Your task to perform on an android device: Clear the cart on ebay. Add "razer blade" to the cart on ebay, then select checkout. Image 0: 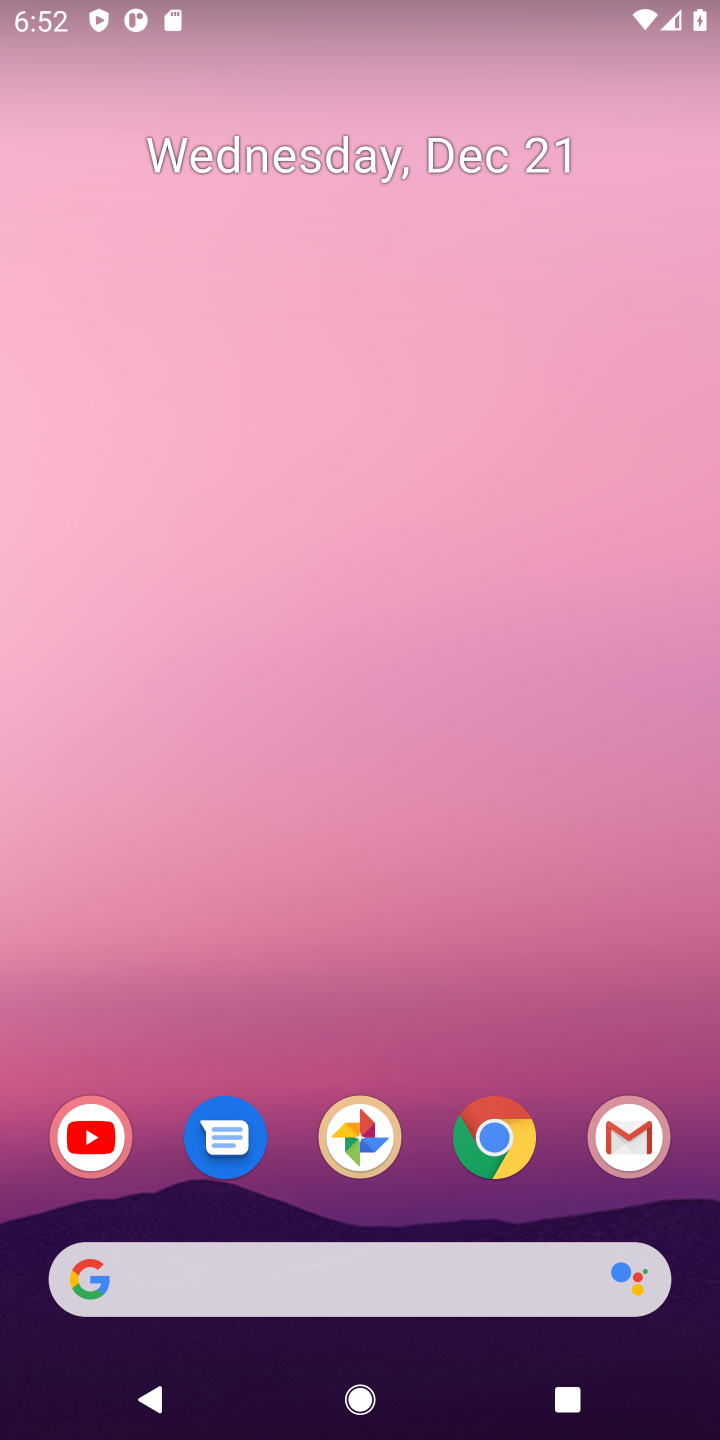
Step 0: click (500, 1151)
Your task to perform on an android device: Clear the cart on ebay. Add "razer blade" to the cart on ebay, then select checkout. Image 1: 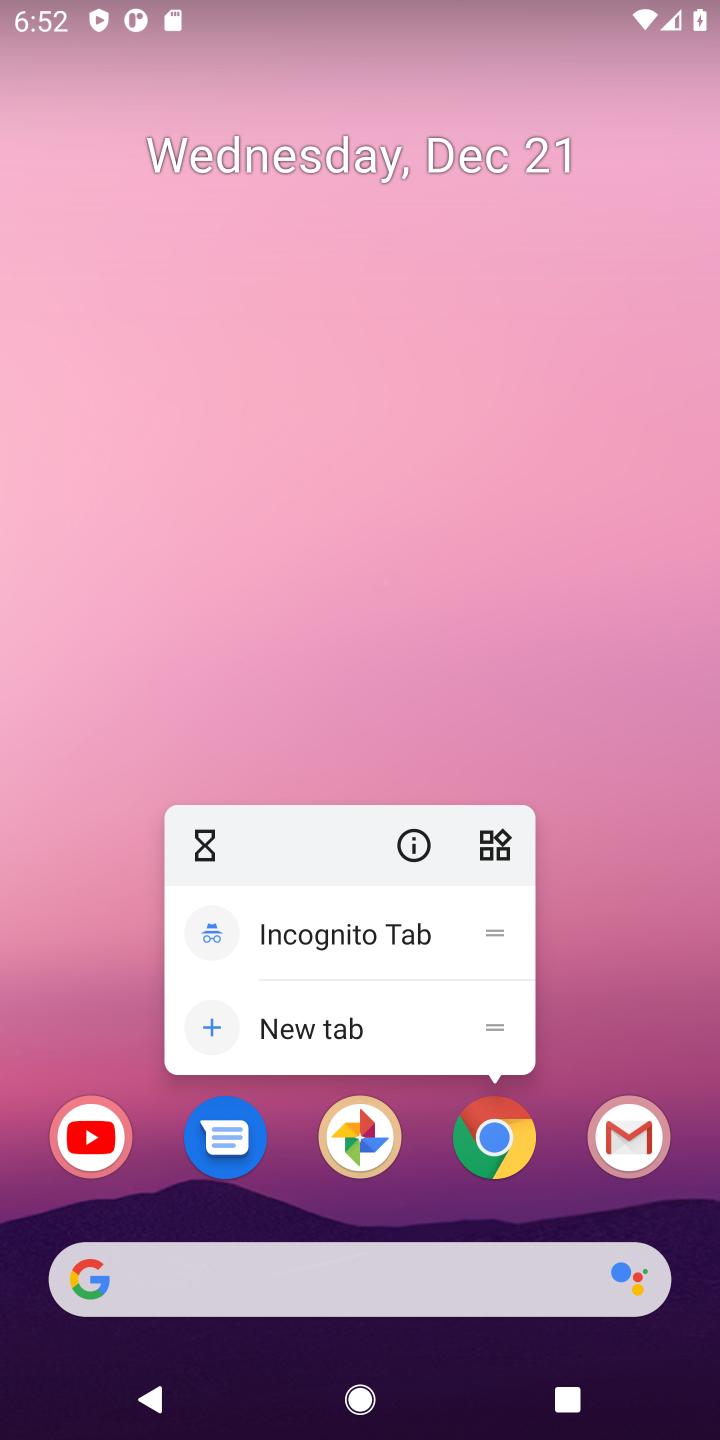
Step 1: click (500, 1151)
Your task to perform on an android device: Clear the cart on ebay. Add "razer blade" to the cart on ebay, then select checkout. Image 2: 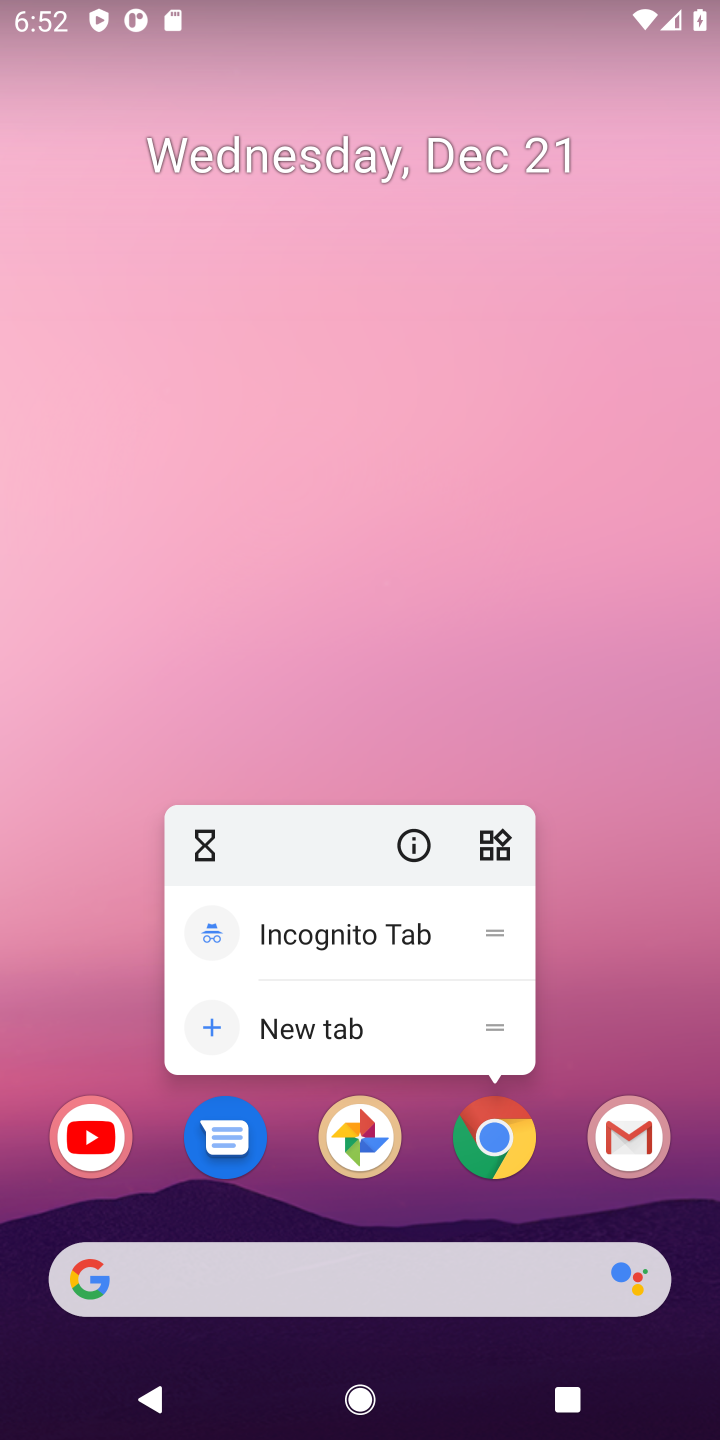
Step 2: click (499, 1149)
Your task to perform on an android device: Clear the cart on ebay. Add "razer blade" to the cart on ebay, then select checkout. Image 3: 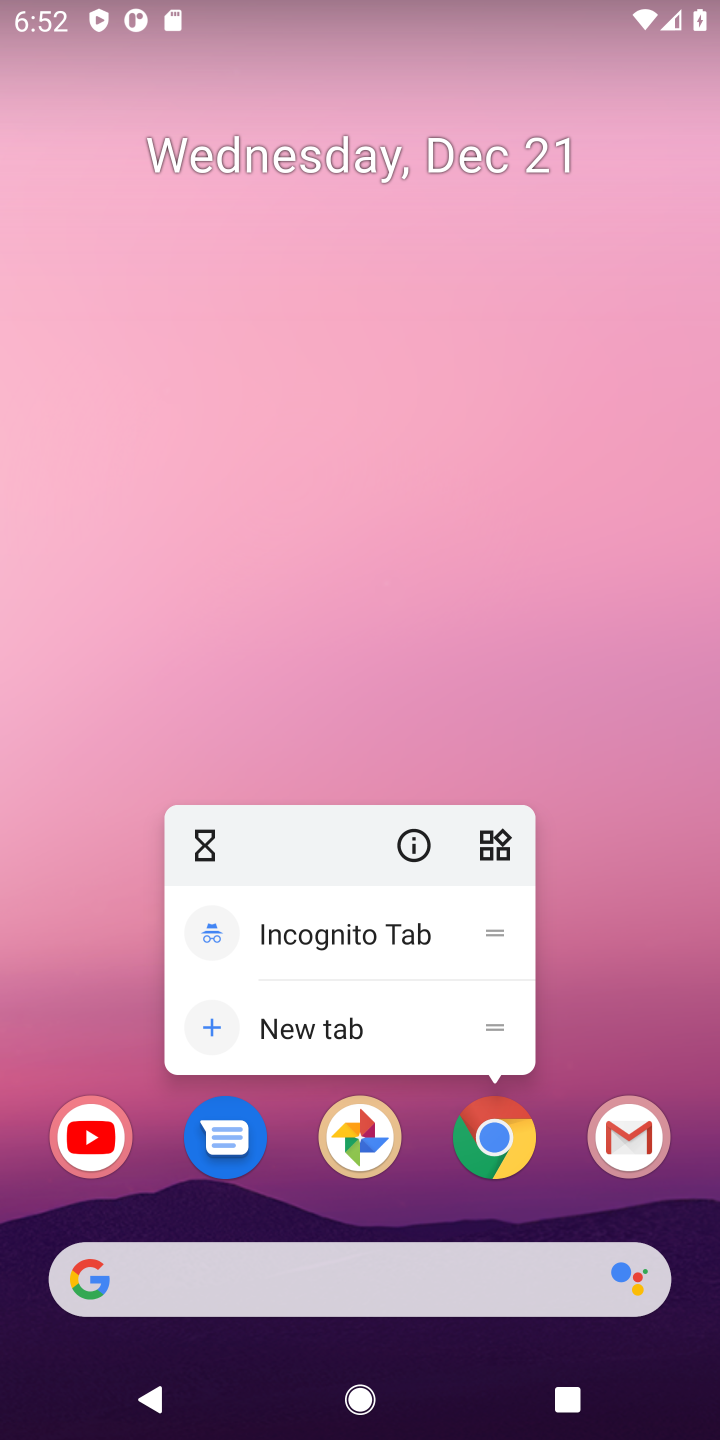
Step 3: click (597, 838)
Your task to perform on an android device: Clear the cart on ebay. Add "razer blade" to the cart on ebay, then select checkout. Image 4: 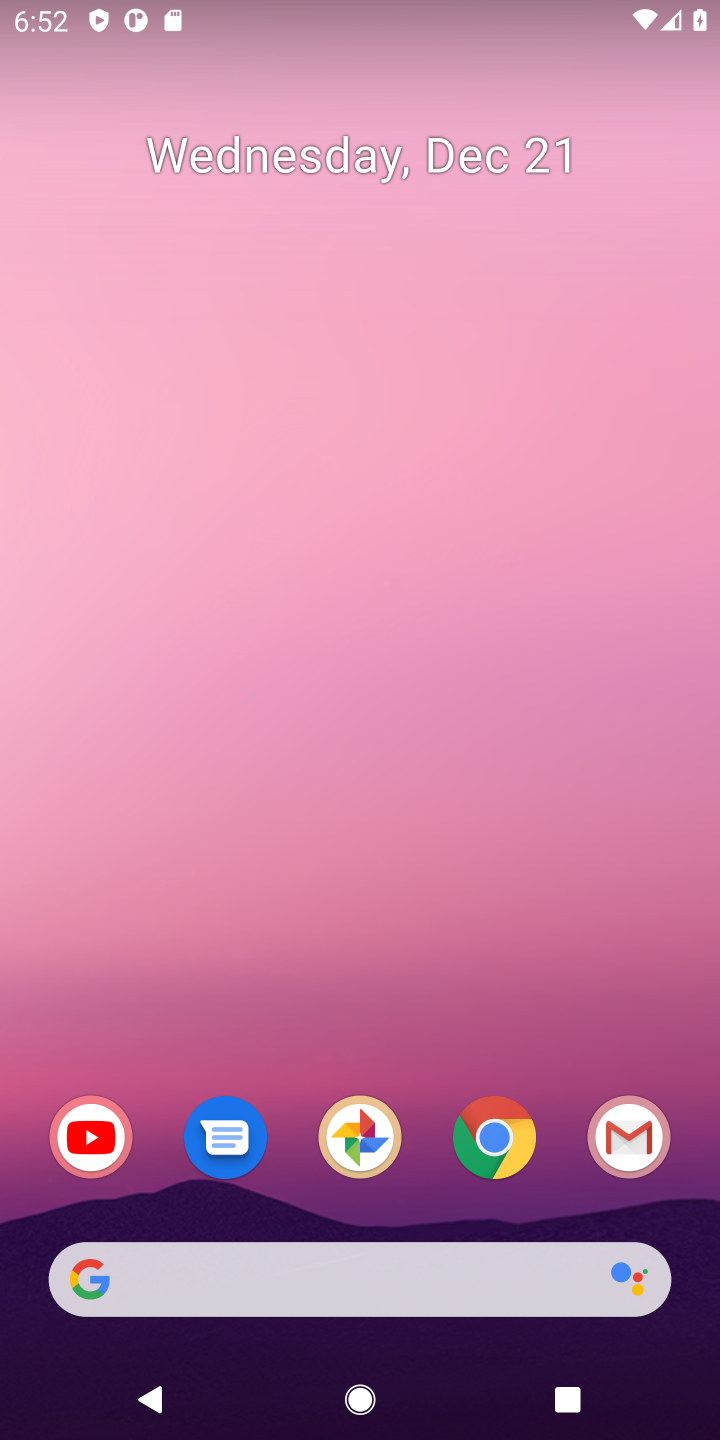
Step 4: click (502, 1133)
Your task to perform on an android device: Clear the cart on ebay. Add "razer blade" to the cart on ebay, then select checkout. Image 5: 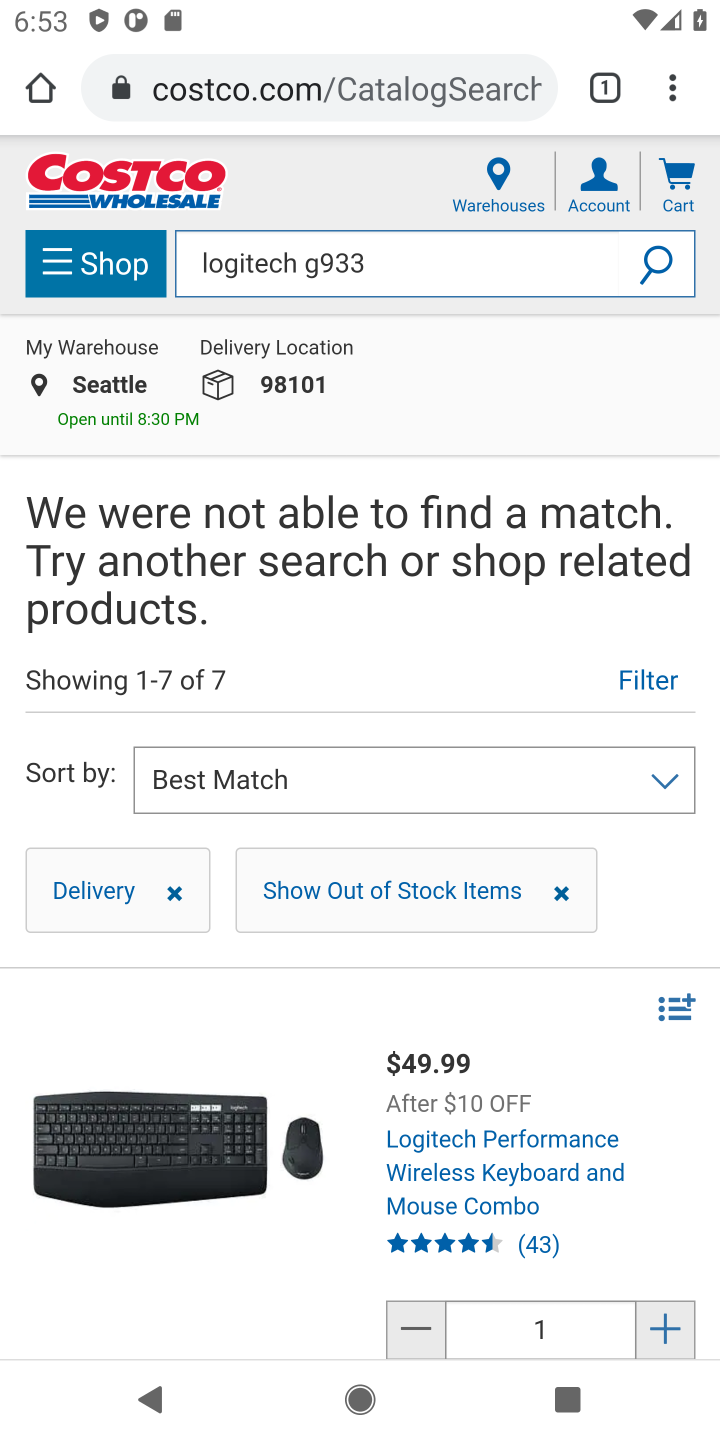
Step 5: click (259, 103)
Your task to perform on an android device: Clear the cart on ebay. Add "razer blade" to the cart on ebay, then select checkout. Image 6: 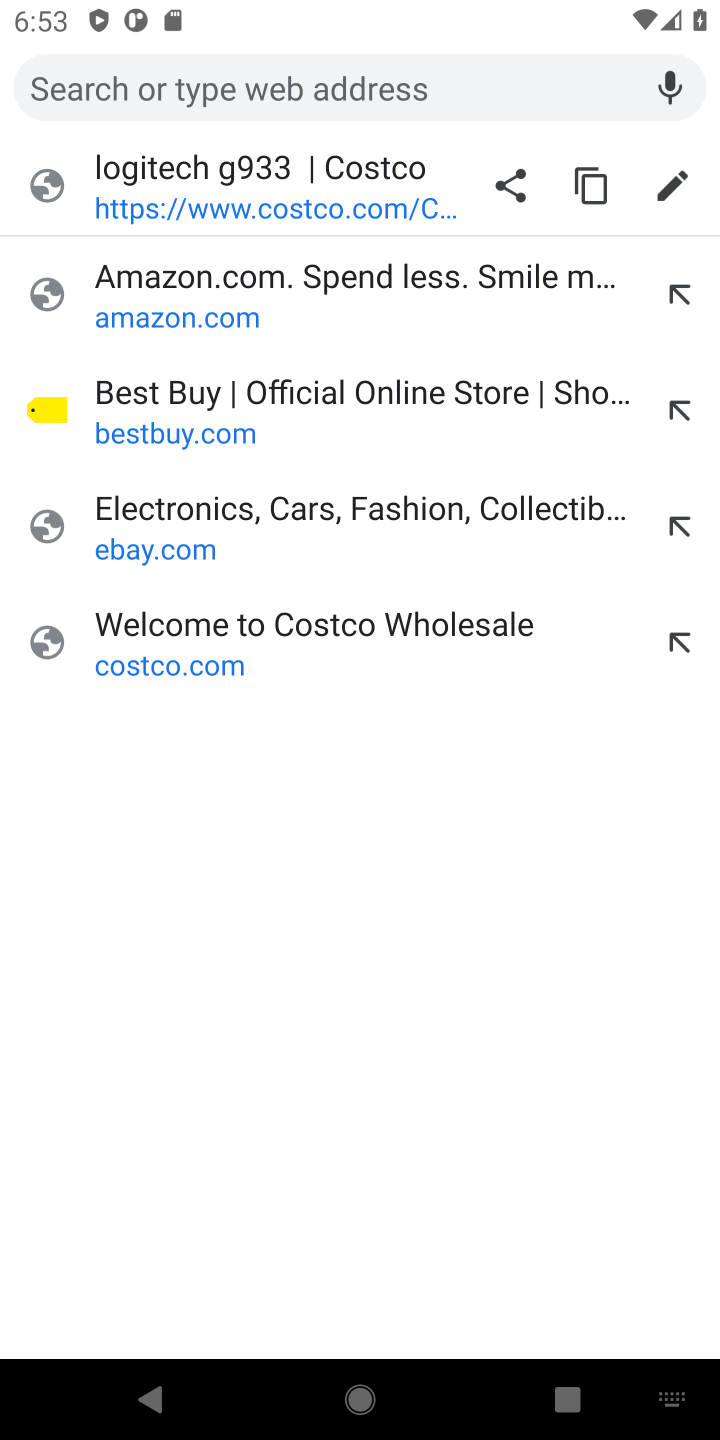
Step 6: click (146, 550)
Your task to perform on an android device: Clear the cart on ebay. Add "razer blade" to the cart on ebay, then select checkout. Image 7: 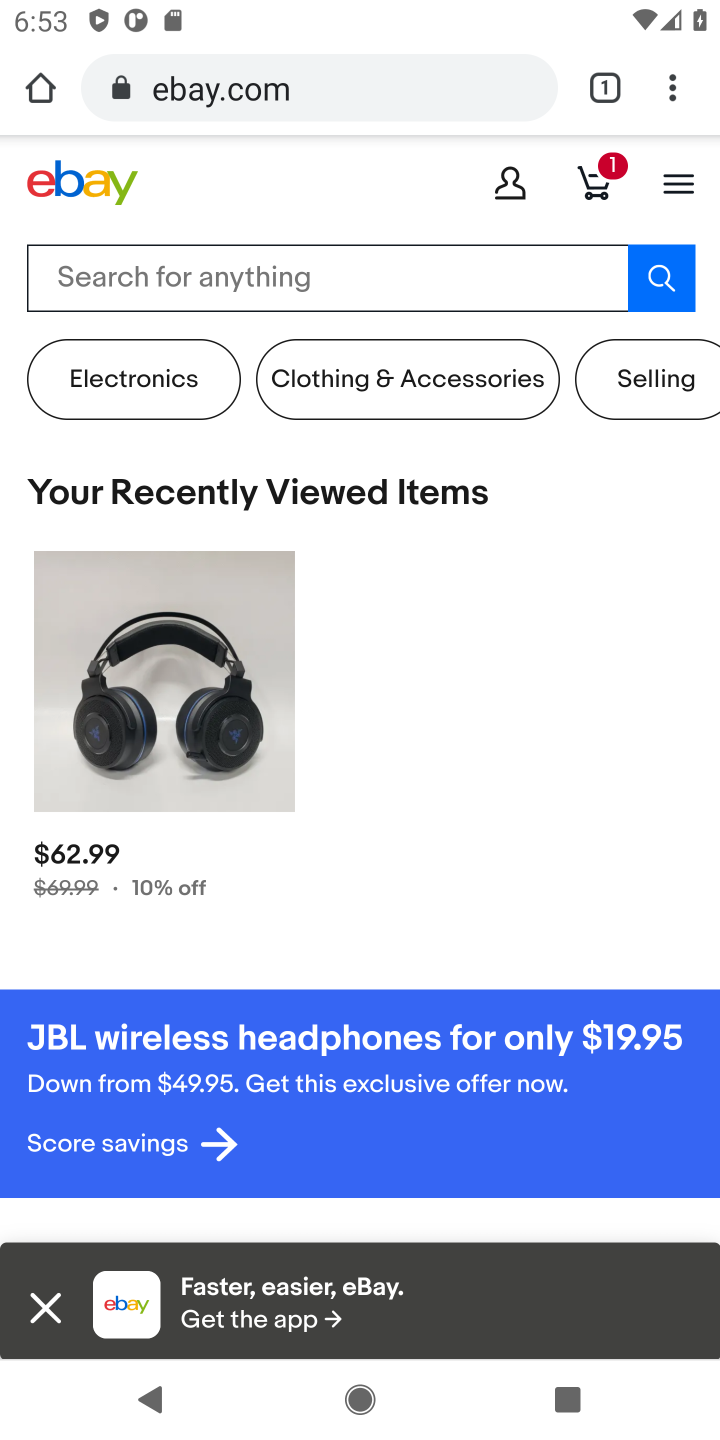
Step 7: click (605, 190)
Your task to perform on an android device: Clear the cart on ebay. Add "razer blade" to the cart on ebay, then select checkout. Image 8: 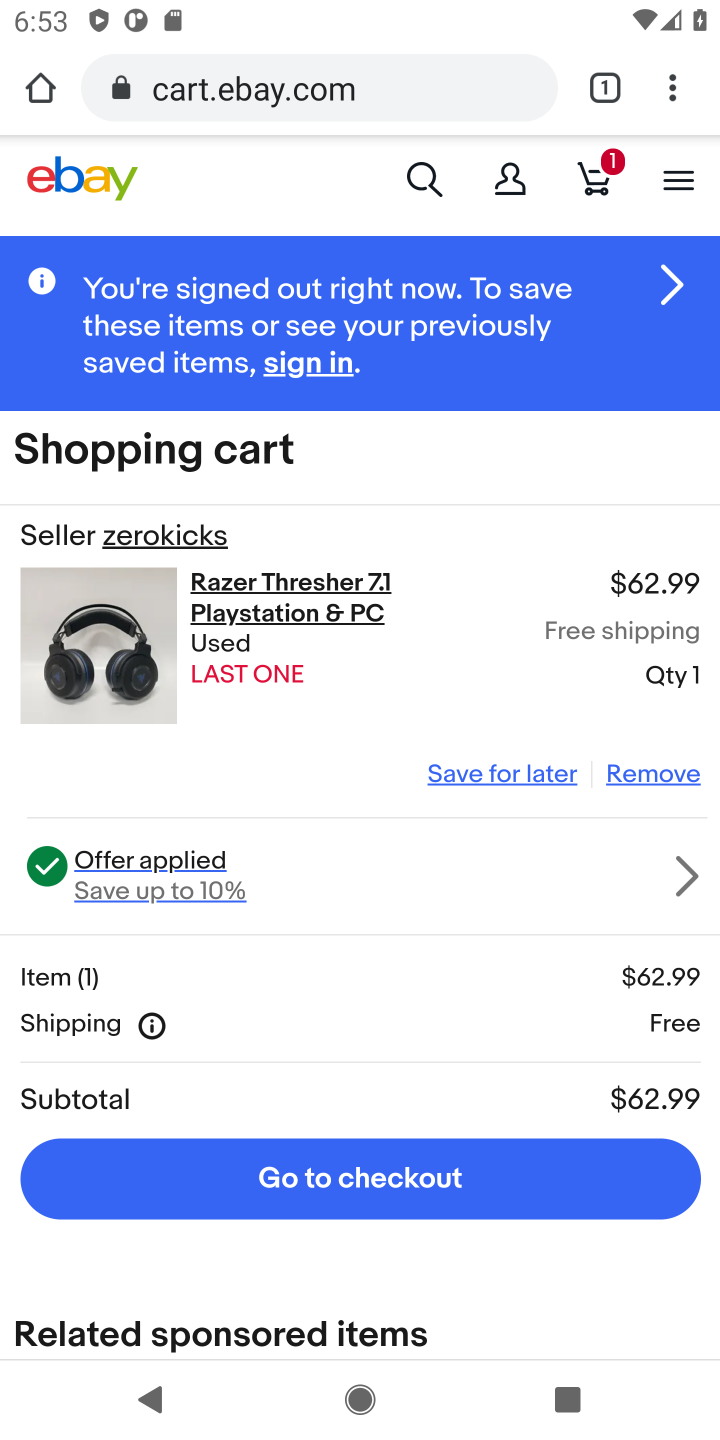
Step 8: click (640, 778)
Your task to perform on an android device: Clear the cart on ebay. Add "razer blade" to the cart on ebay, then select checkout. Image 9: 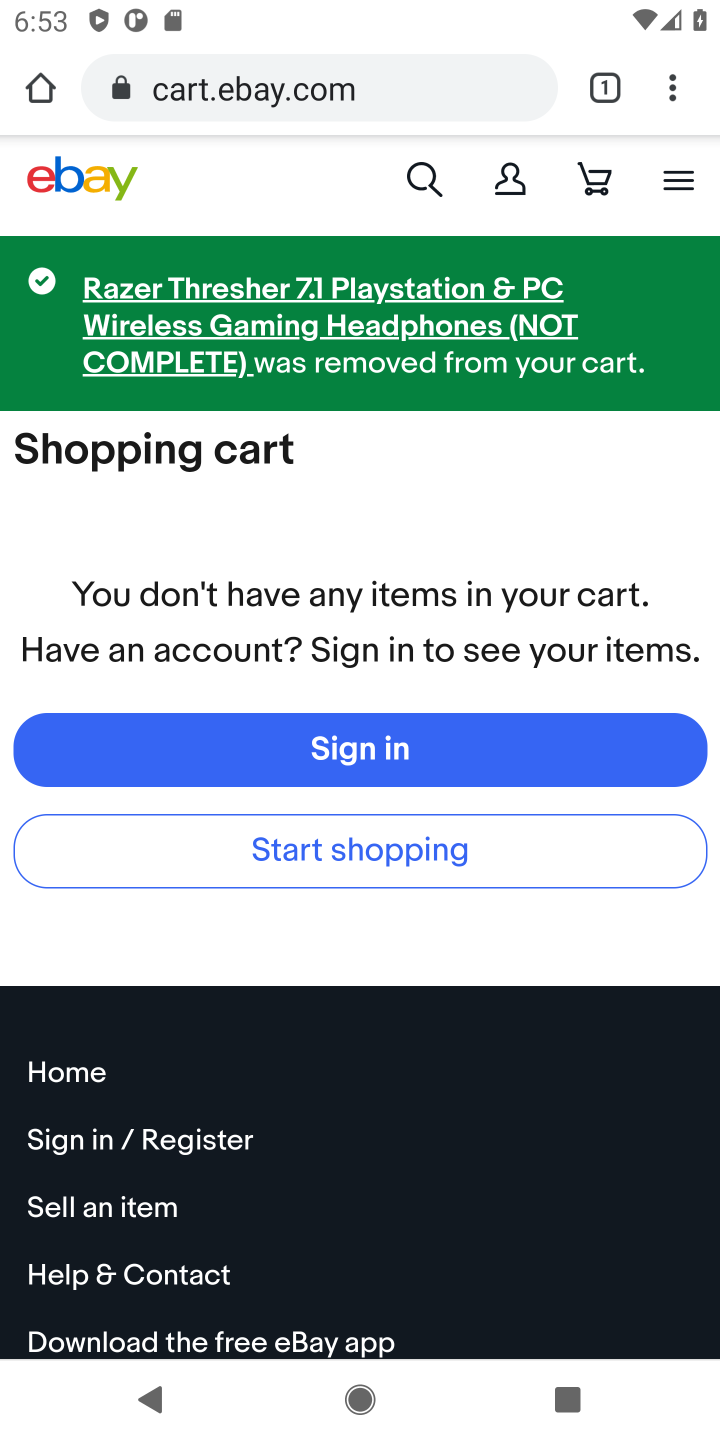
Step 9: click (417, 175)
Your task to perform on an android device: Clear the cart on ebay. Add "razer blade" to the cart on ebay, then select checkout. Image 10: 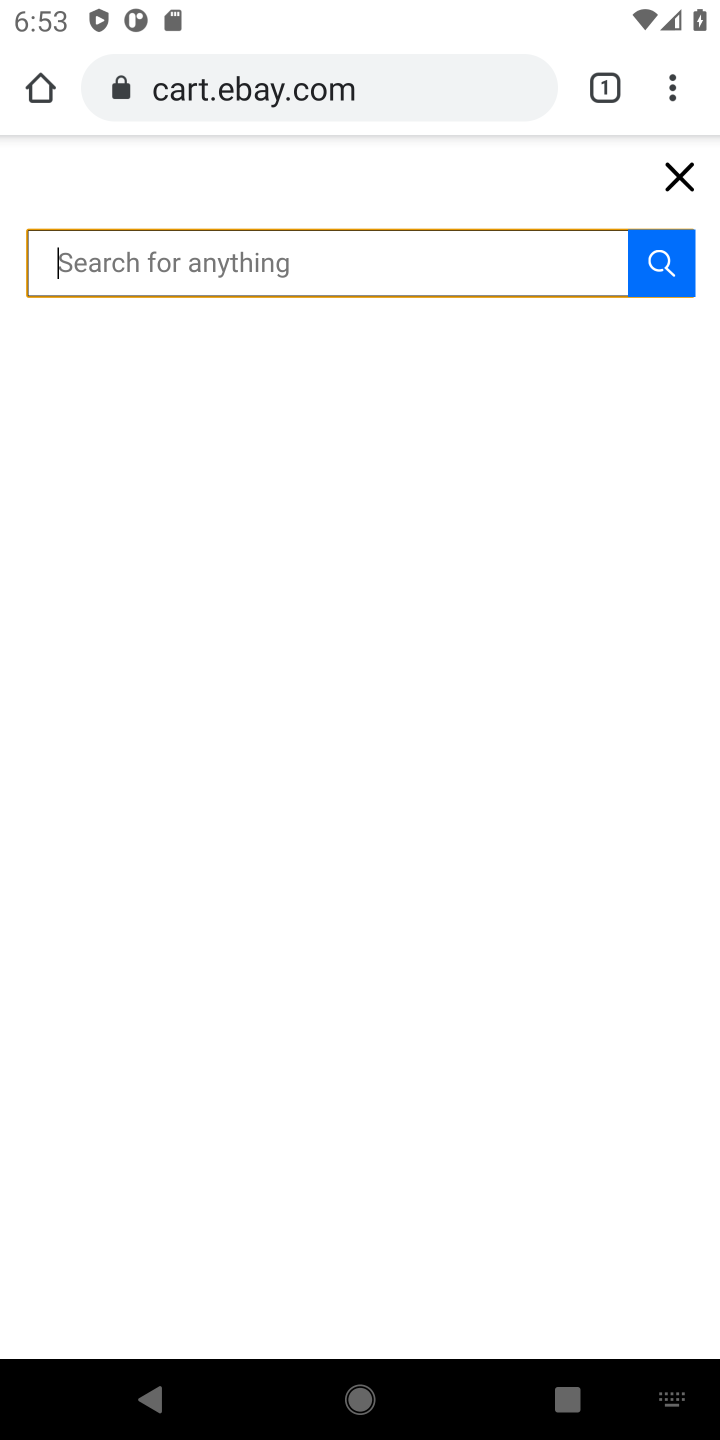
Step 10: type "razer blade"
Your task to perform on an android device: Clear the cart on ebay. Add "razer blade" to the cart on ebay, then select checkout. Image 11: 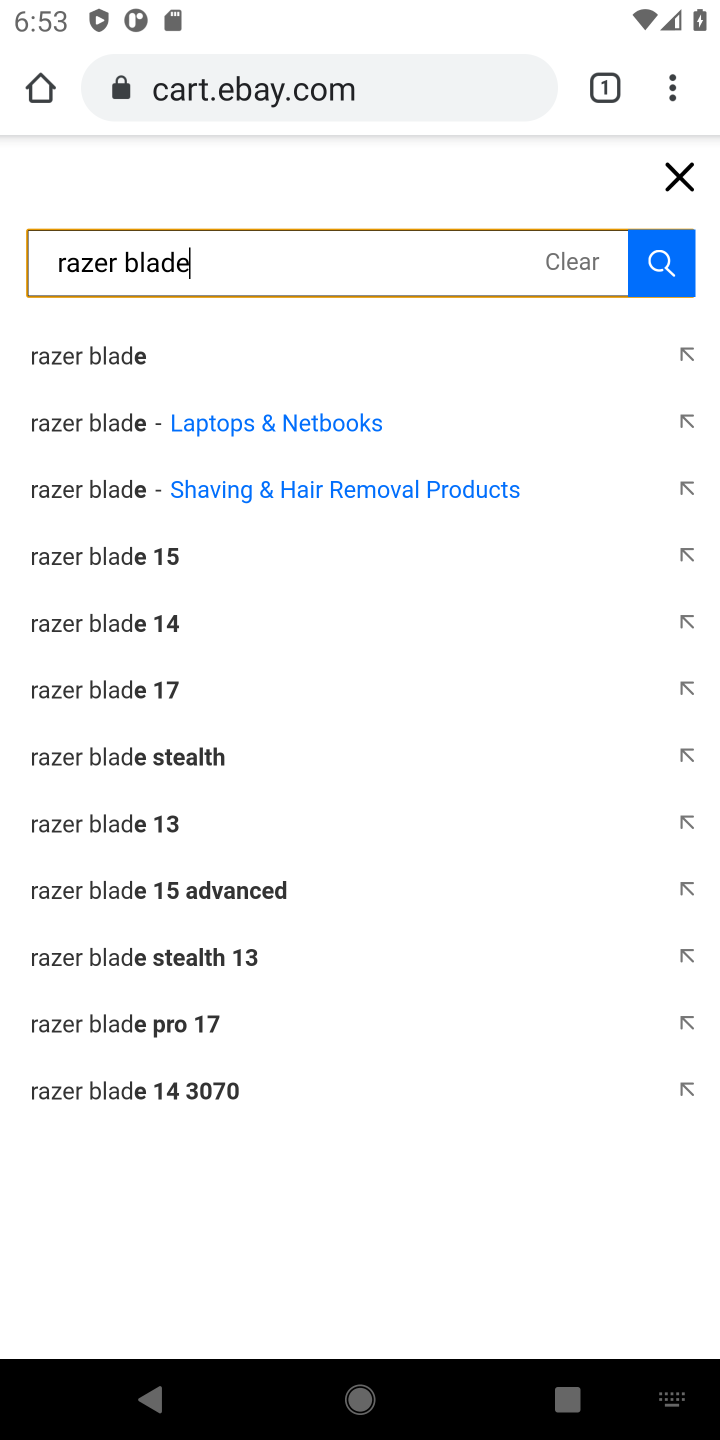
Step 11: click (104, 368)
Your task to perform on an android device: Clear the cart on ebay. Add "razer blade" to the cart on ebay, then select checkout. Image 12: 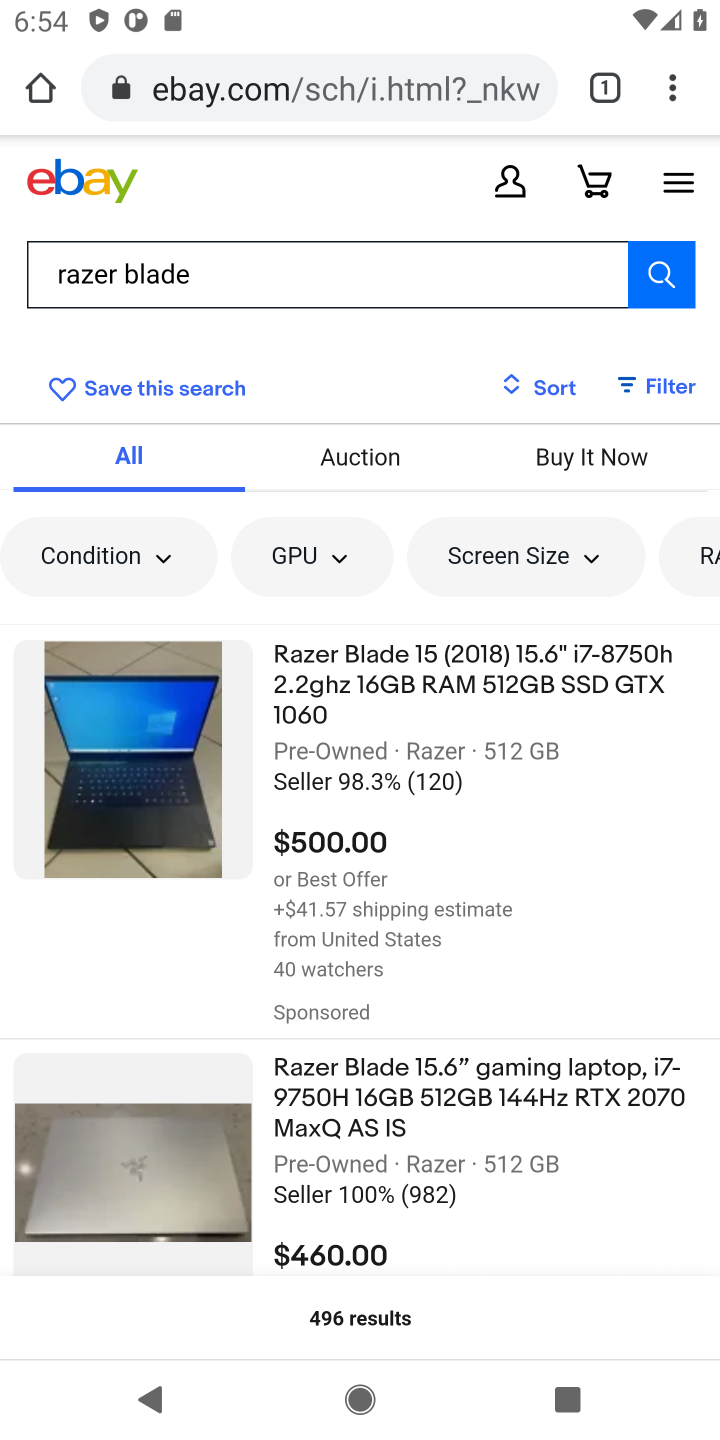
Step 12: click (339, 675)
Your task to perform on an android device: Clear the cart on ebay. Add "razer blade" to the cart on ebay, then select checkout. Image 13: 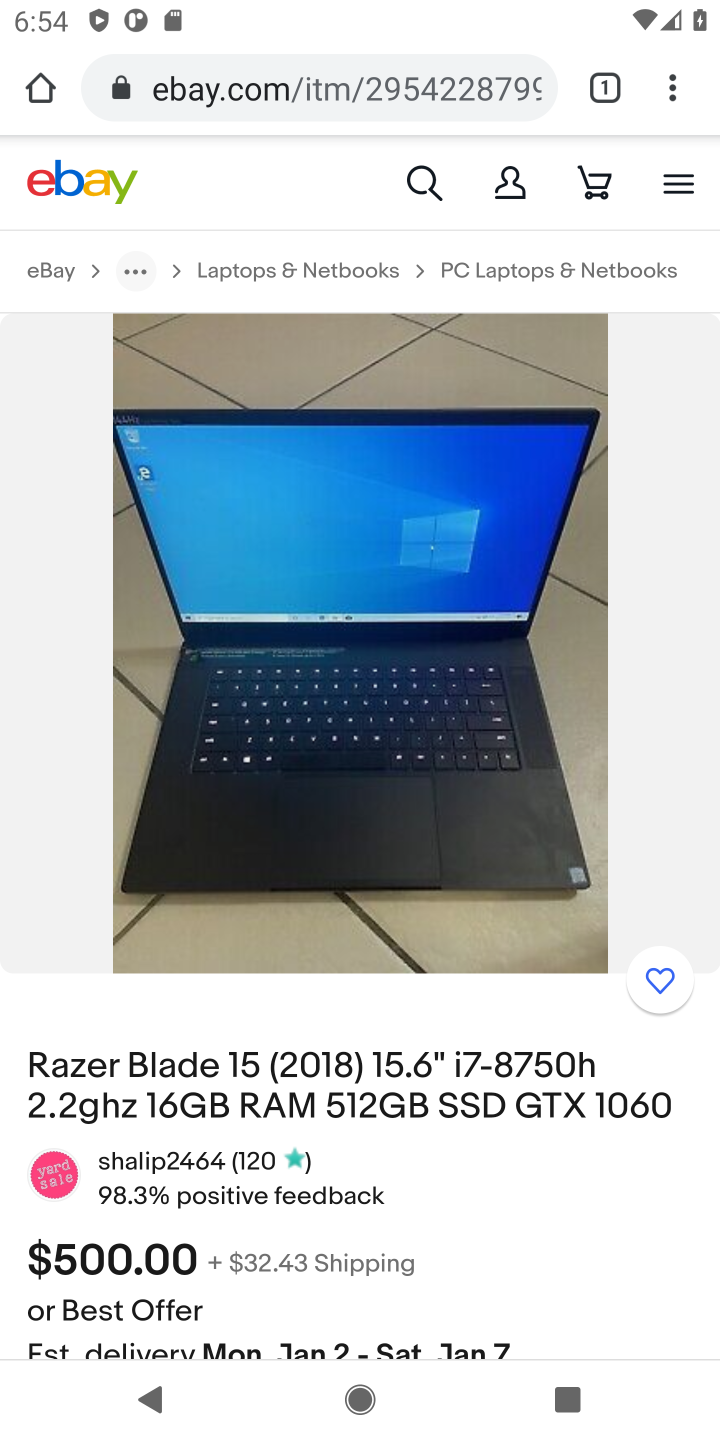
Step 13: drag from (290, 1096) to (325, 447)
Your task to perform on an android device: Clear the cart on ebay. Add "razer blade" to the cart on ebay, then select checkout. Image 14: 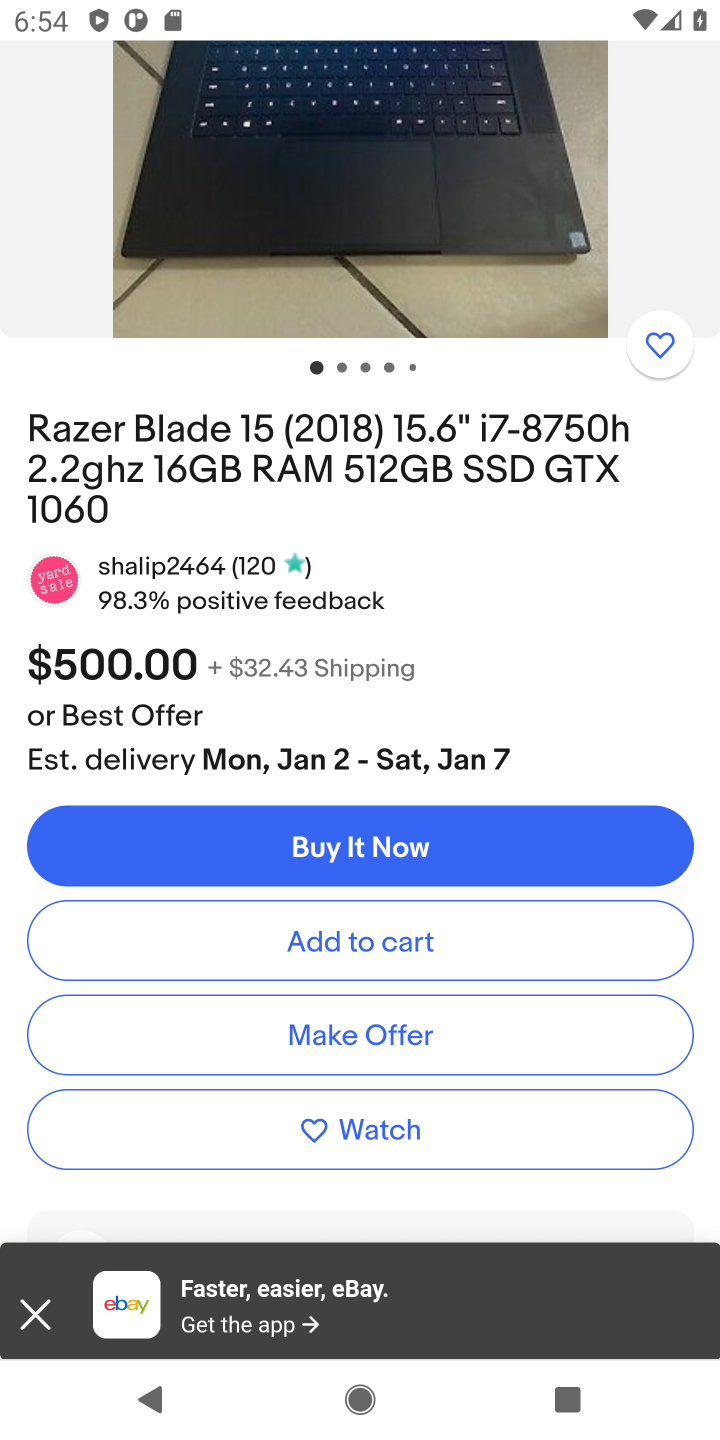
Step 14: click (331, 942)
Your task to perform on an android device: Clear the cart on ebay. Add "razer blade" to the cart on ebay, then select checkout. Image 15: 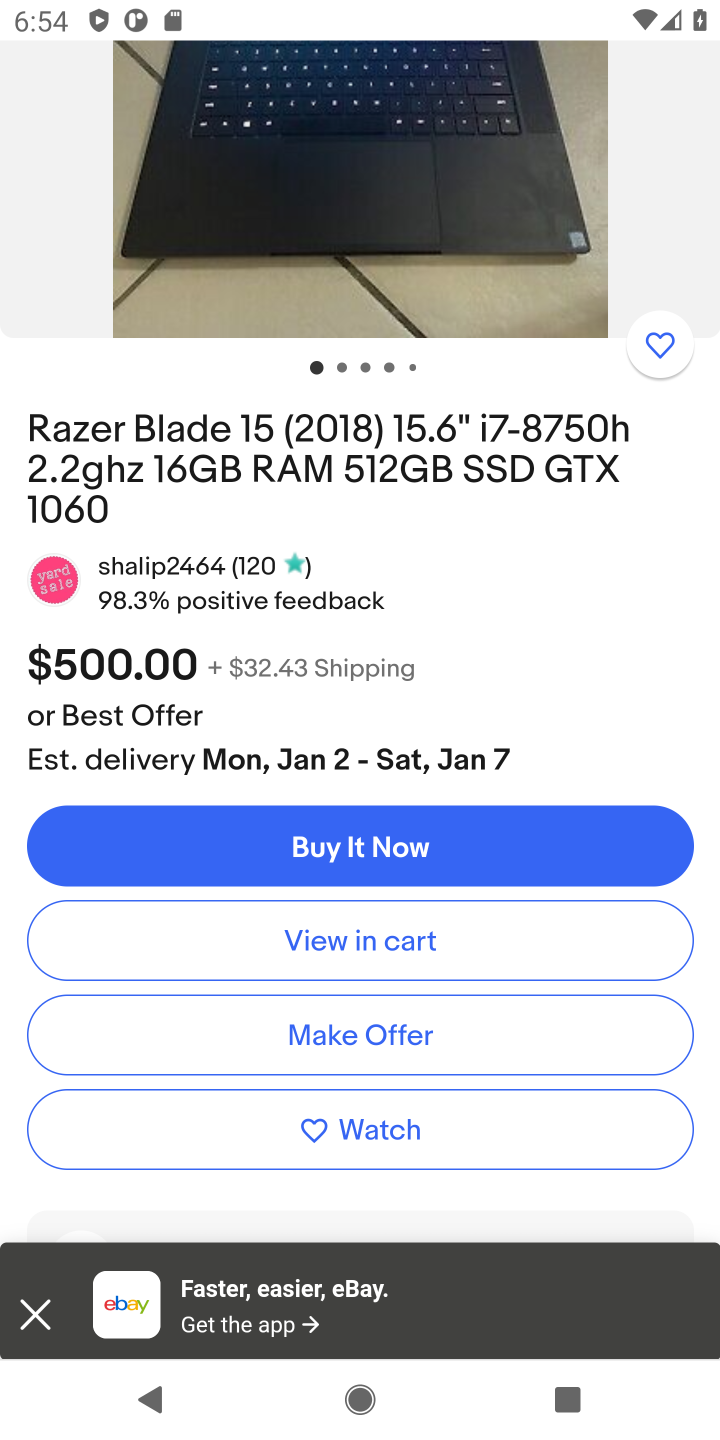
Step 15: click (331, 942)
Your task to perform on an android device: Clear the cart on ebay. Add "razer blade" to the cart on ebay, then select checkout. Image 16: 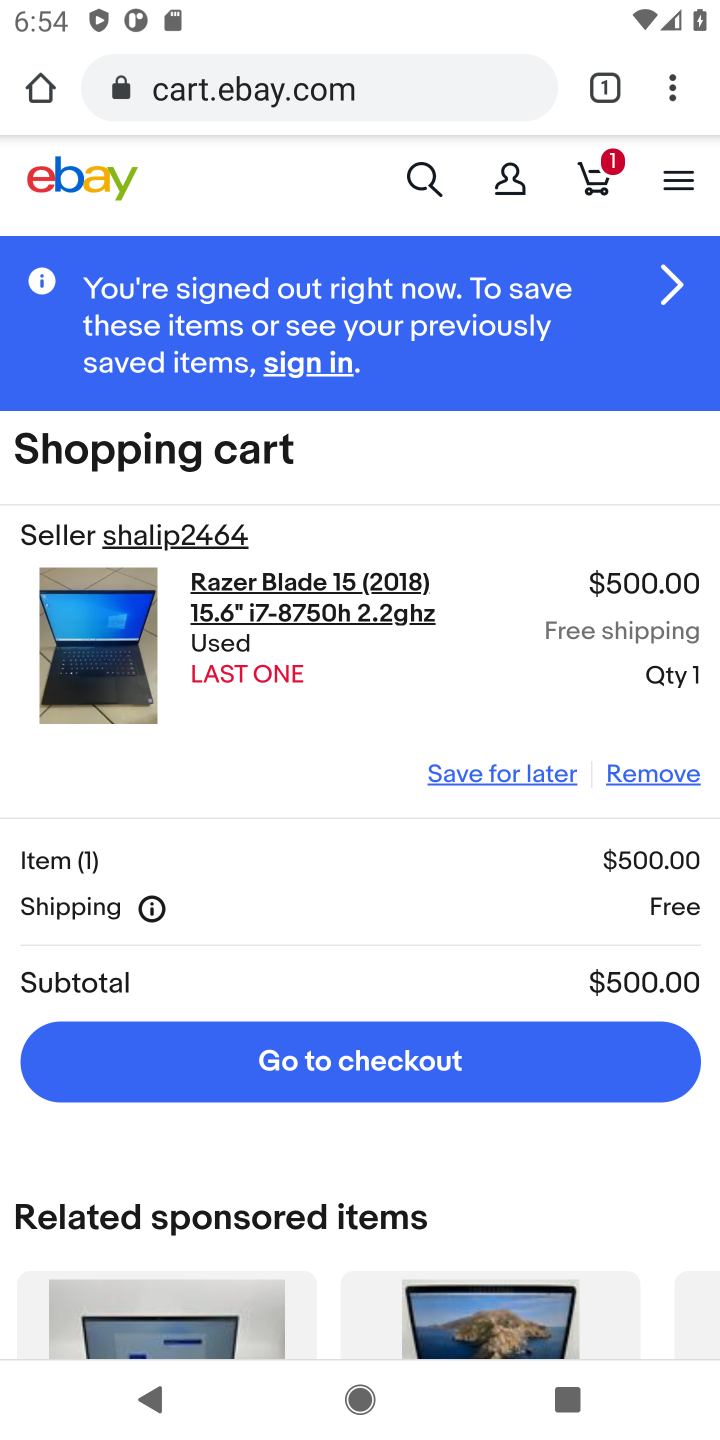
Step 16: click (317, 1083)
Your task to perform on an android device: Clear the cart on ebay. Add "razer blade" to the cart on ebay, then select checkout. Image 17: 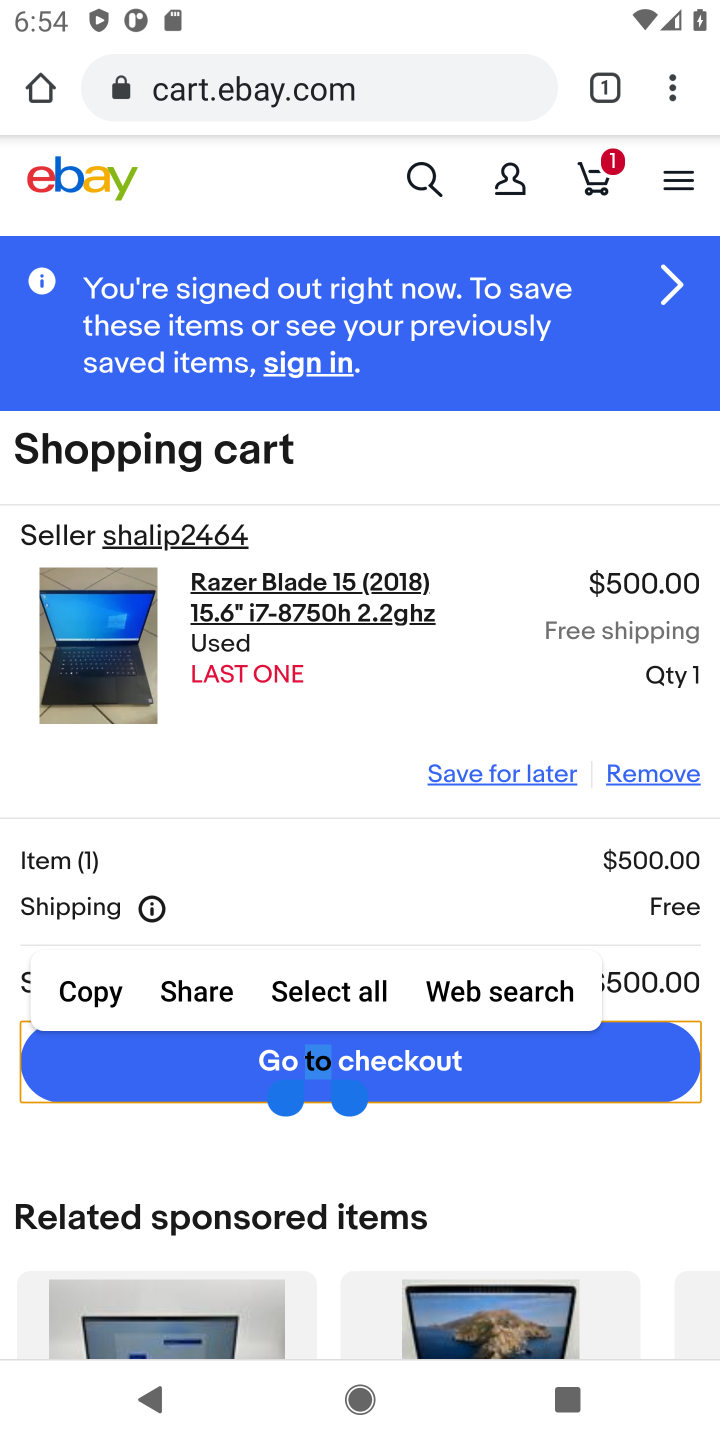
Step 17: click (405, 1057)
Your task to perform on an android device: Clear the cart on ebay. Add "razer blade" to the cart on ebay, then select checkout. Image 18: 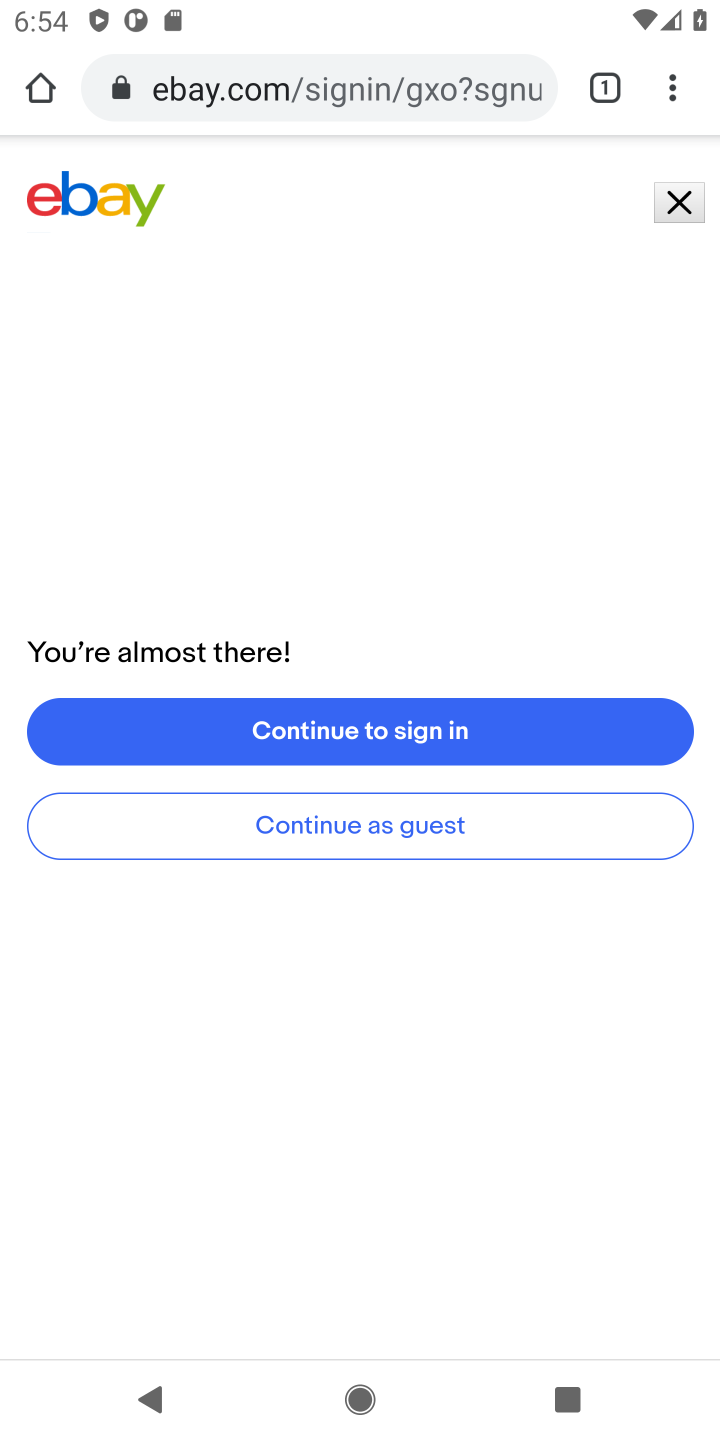
Step 18: task complete